Your task to perform on an android device: turn off data saver in the chrome app Image 0: 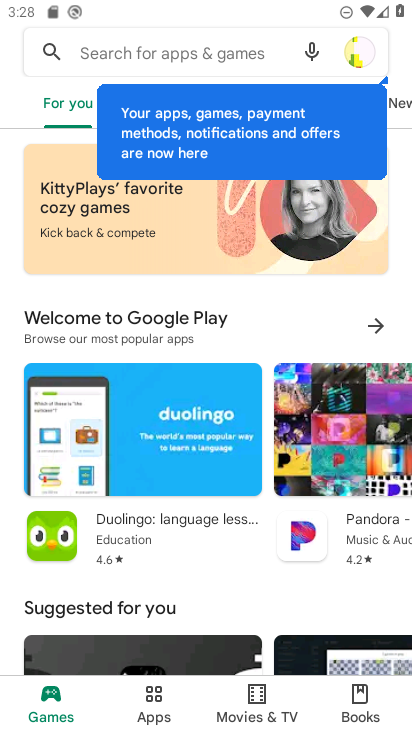
Step 0: press home button
Your task to perform on an android device: turn off data saver in the chrome app Image 1: 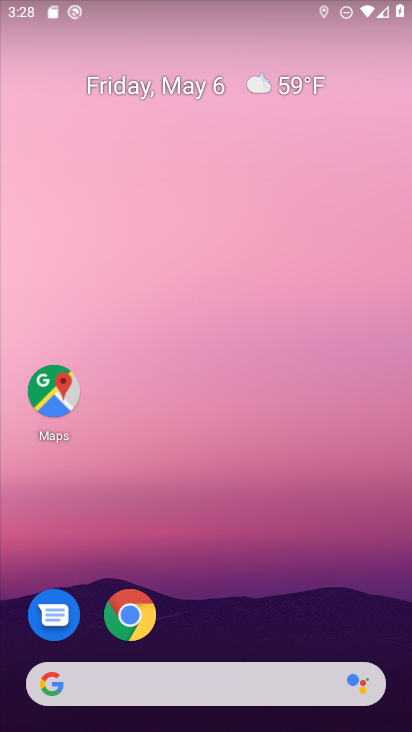
Step 1: click (123, 607)
Your task to perform on an android device: turn off data saver in the chrome app Image 2: 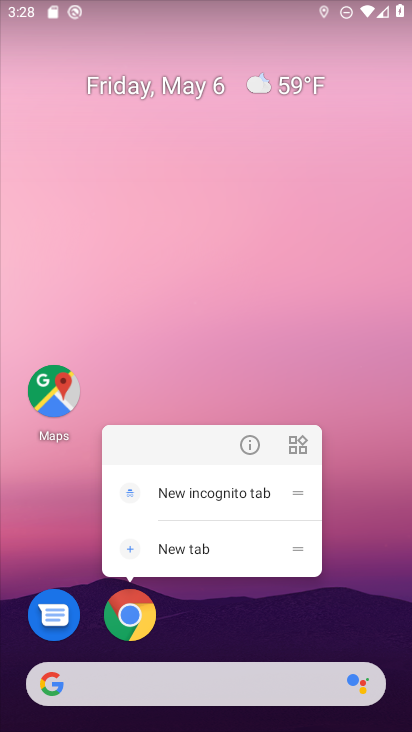
Step 2: click (362, 301)
Your task to perform on an android device: turn off data saver in the chrome app Image 3: 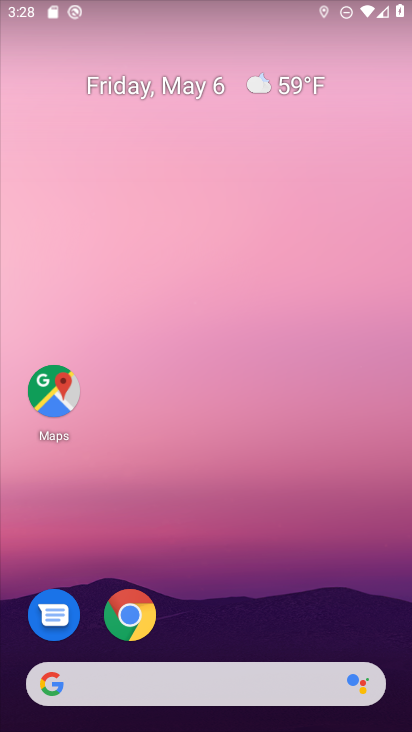
Step 3: click (131, 610)
Your task to perform on an android device: turn off data saver in the chrome app Image 4: 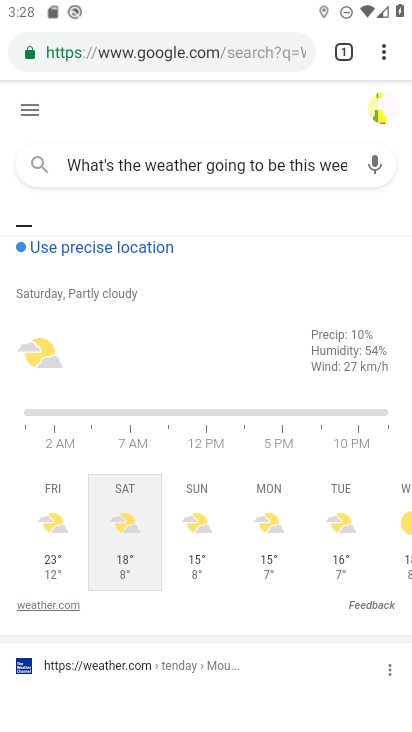
Step 4: drag from (387, 53) to (217, 581)
Your task to perform on an android device: turn off data saver in the chrome app Image 5: 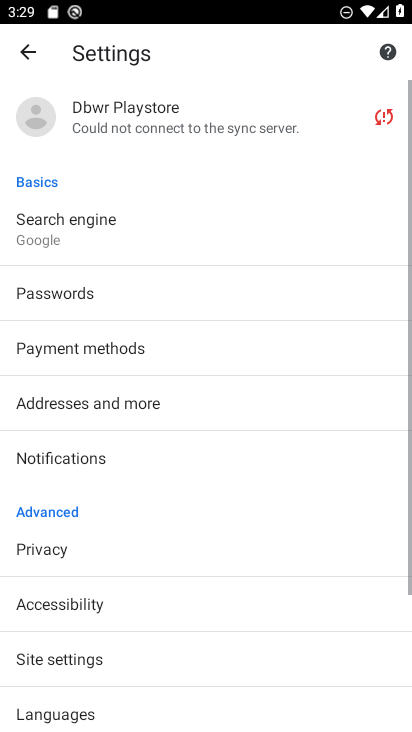
Step 5: drag from (277, 624) to (282, 230)
Your task to perform on an android device: turn off data saver in the chrome app Image 6: 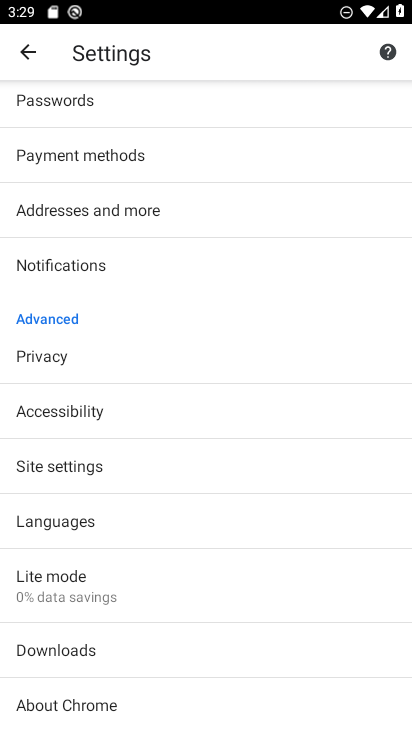
Step 6: click (61, 598)
Your task to perform on an android device: turn off data saver in the chrome app Image 7: 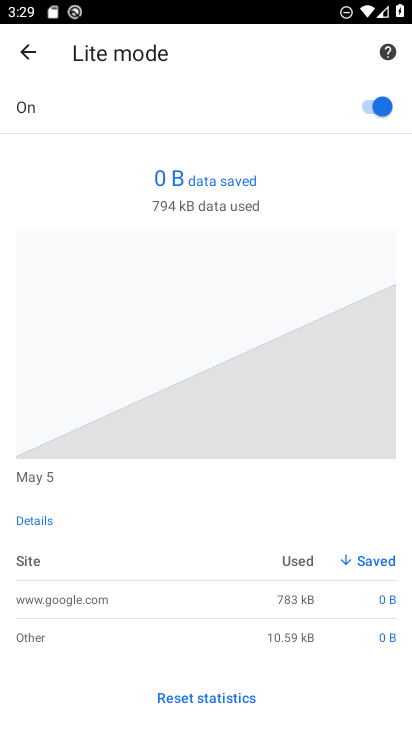
Step 7: click (367, 103)
Your task to perform on an android device: turn off data saver in the chrome app Image 8: 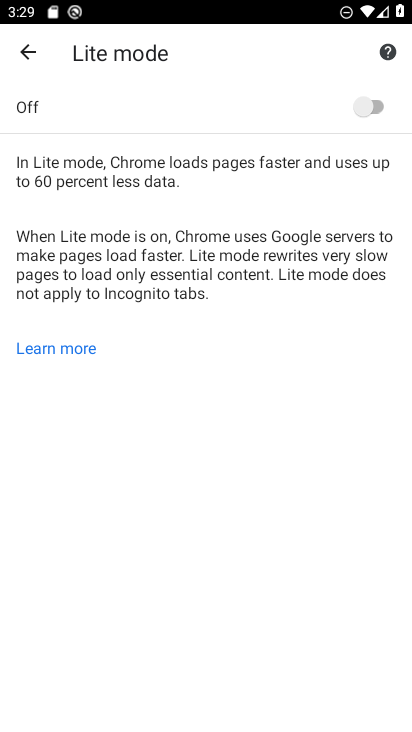
Step 8: task complete